Your task to perform on an android device: check out phone information Image 0: 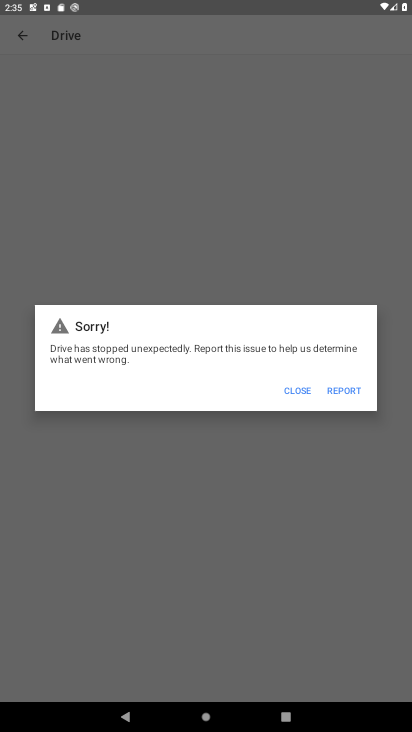
Step 0: press home button
Your task to perform on an android device: check out phone information Image 1: 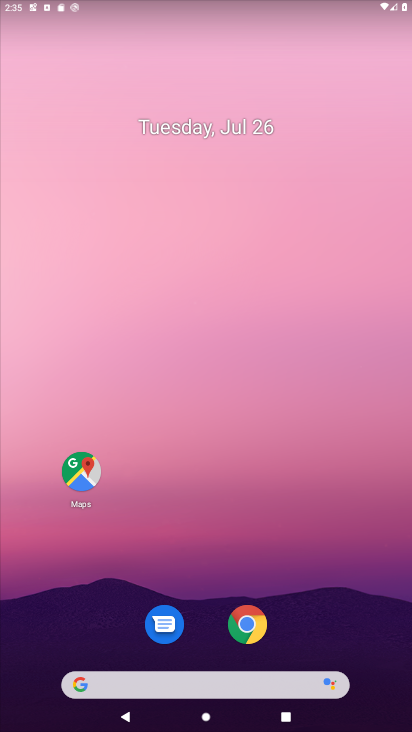
Step 1: drag from (210, 670) to (188, 47)
Your task to perform on an android device: check out phone information Image 2: 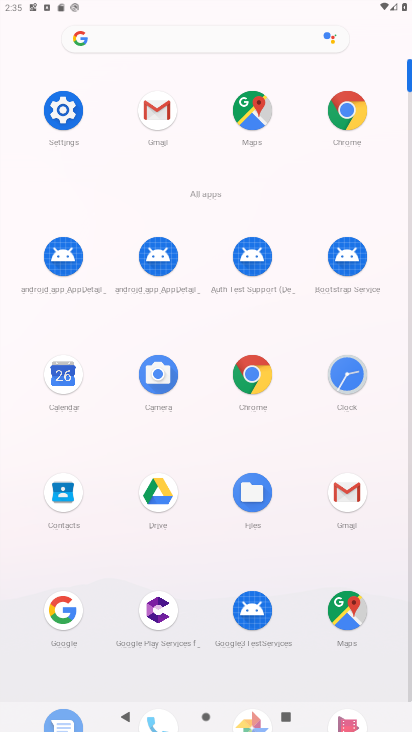
Step 2: drag from (148, 667) to (127, 90)
Your task to perform on an android device: check out phone information Image 3: 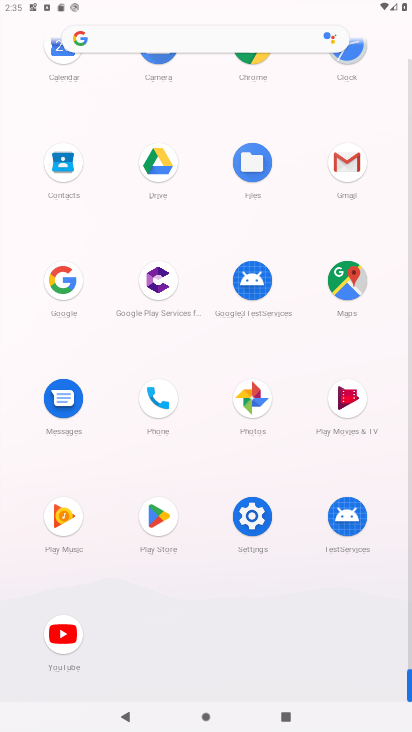
Step 3: click (155, 410)
Your task to perform on an android device: check out phone information Image 4: 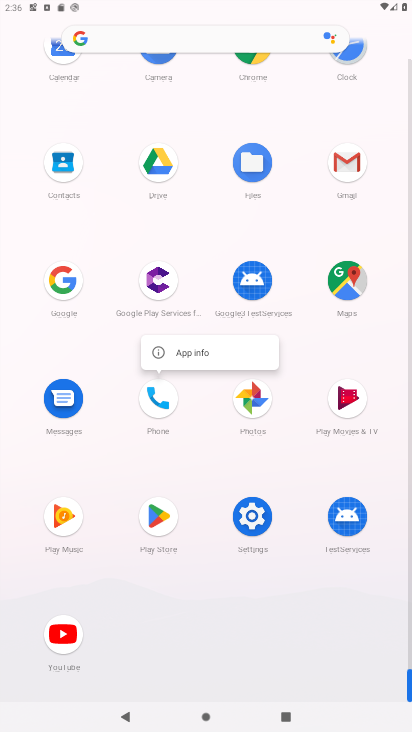
Step 4: click (173, 356)
Your task to perform on an android device: check out phone information Image 5: 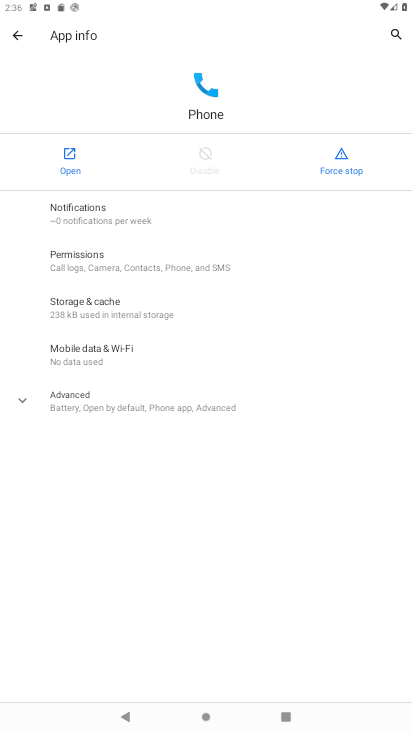
Step 5: click (119, 412)
Your task to perform on an android device: check out phone information Image 6: 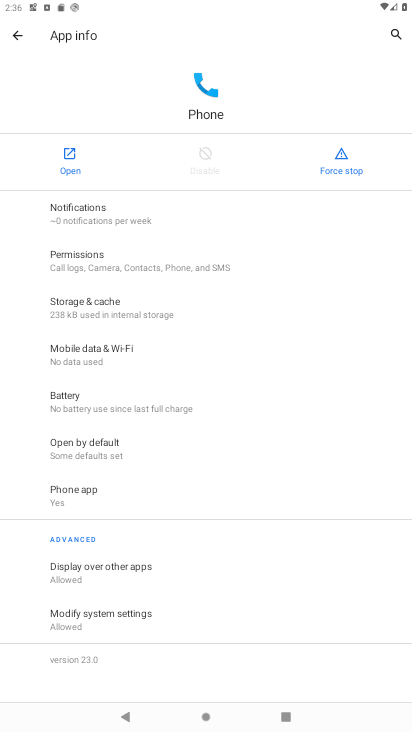
Step 6: task complete